Your task to perform on an android device: open app "Cash App" Image 0: 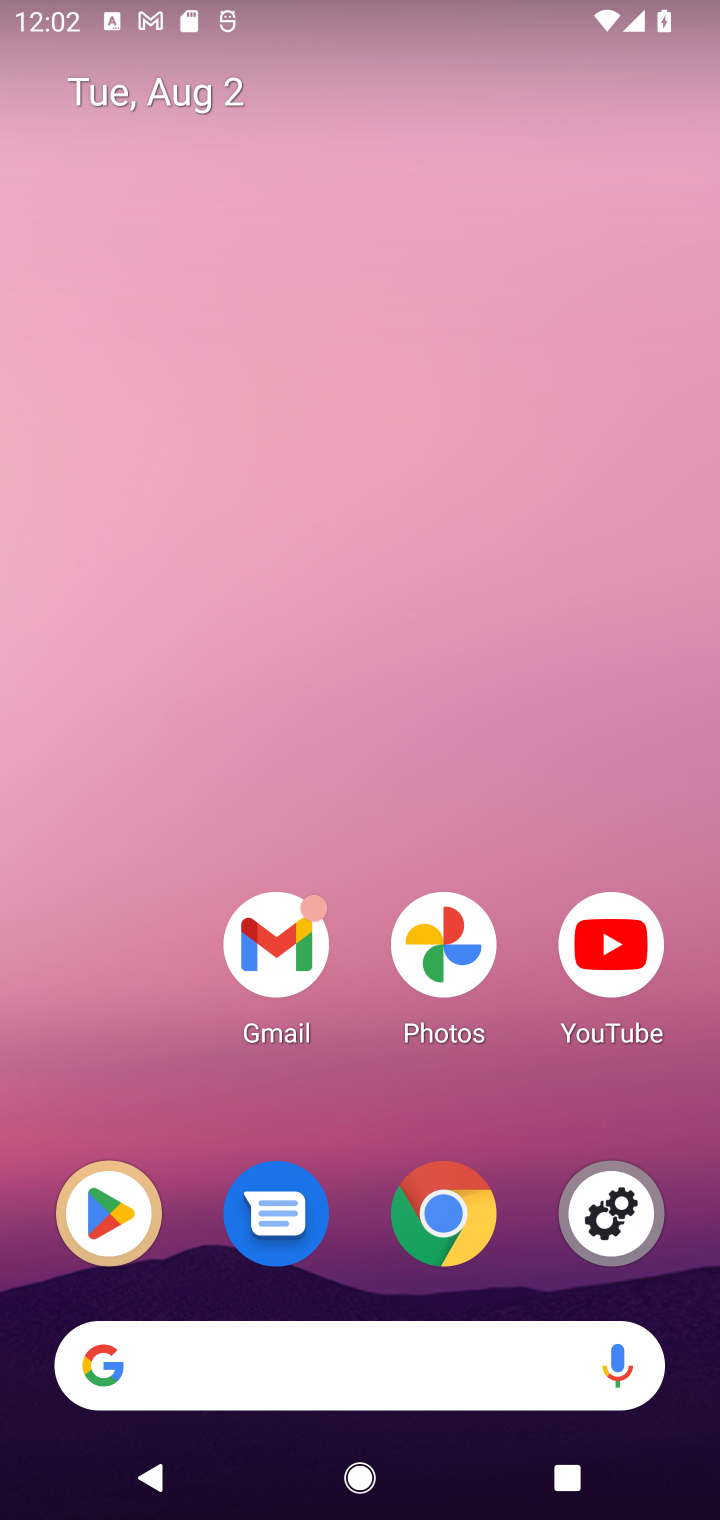
Step 0: click (124, 1239)
Your task to perform on an android device: open app "Cash App" Image 1: 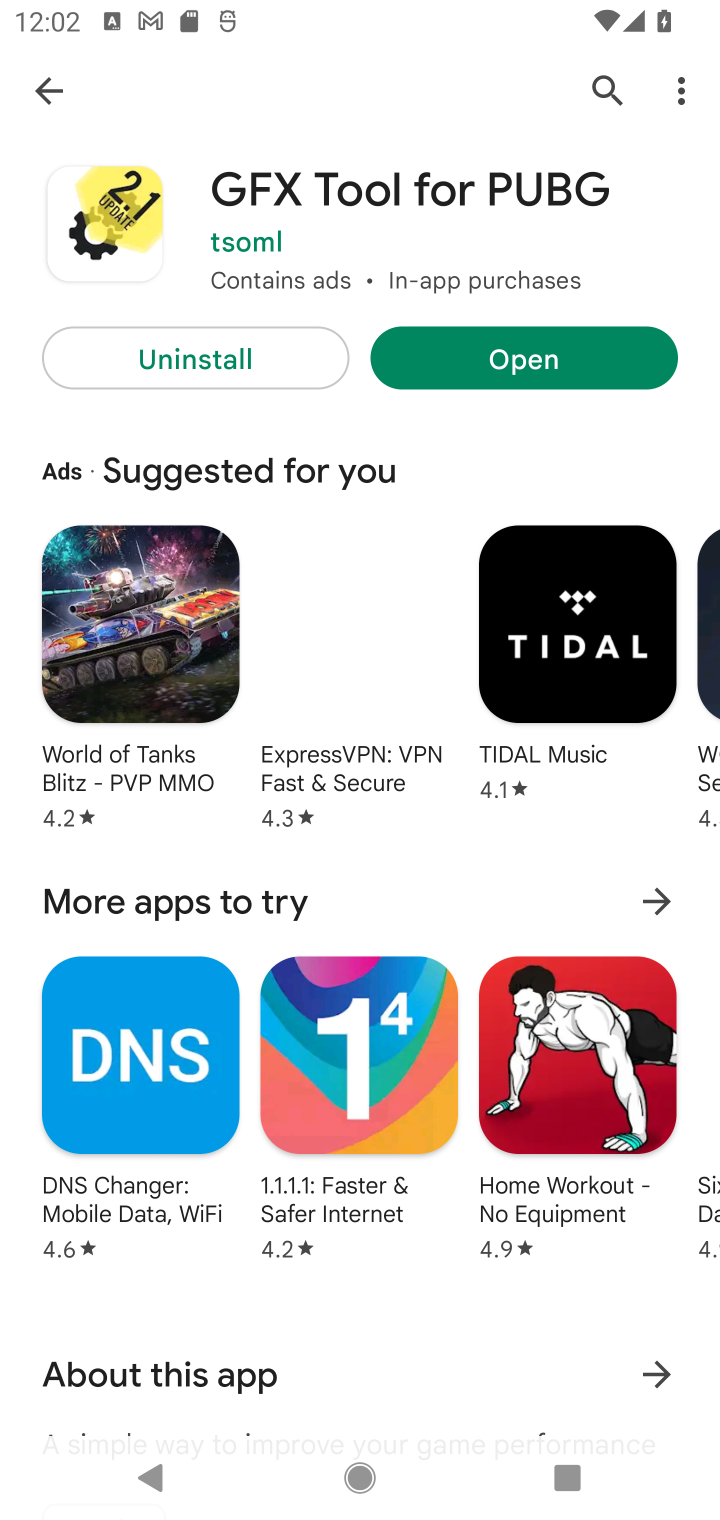
Step 1: click (59, 90)
Your task to perform on an android device: open app "Cash App" Image 2: 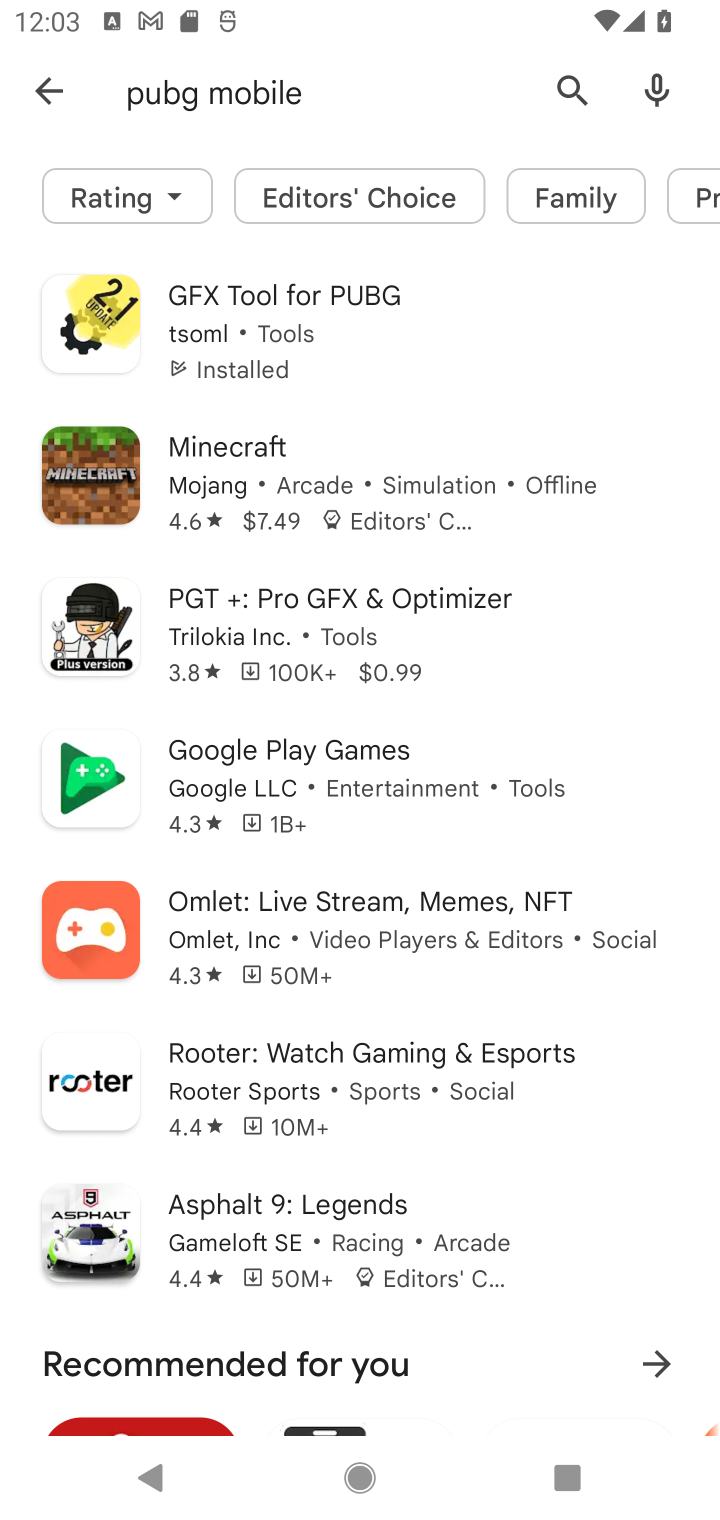
Step 2: click (56, 90)
Your task to perform on an android device: open app "Cash App" Image 3: 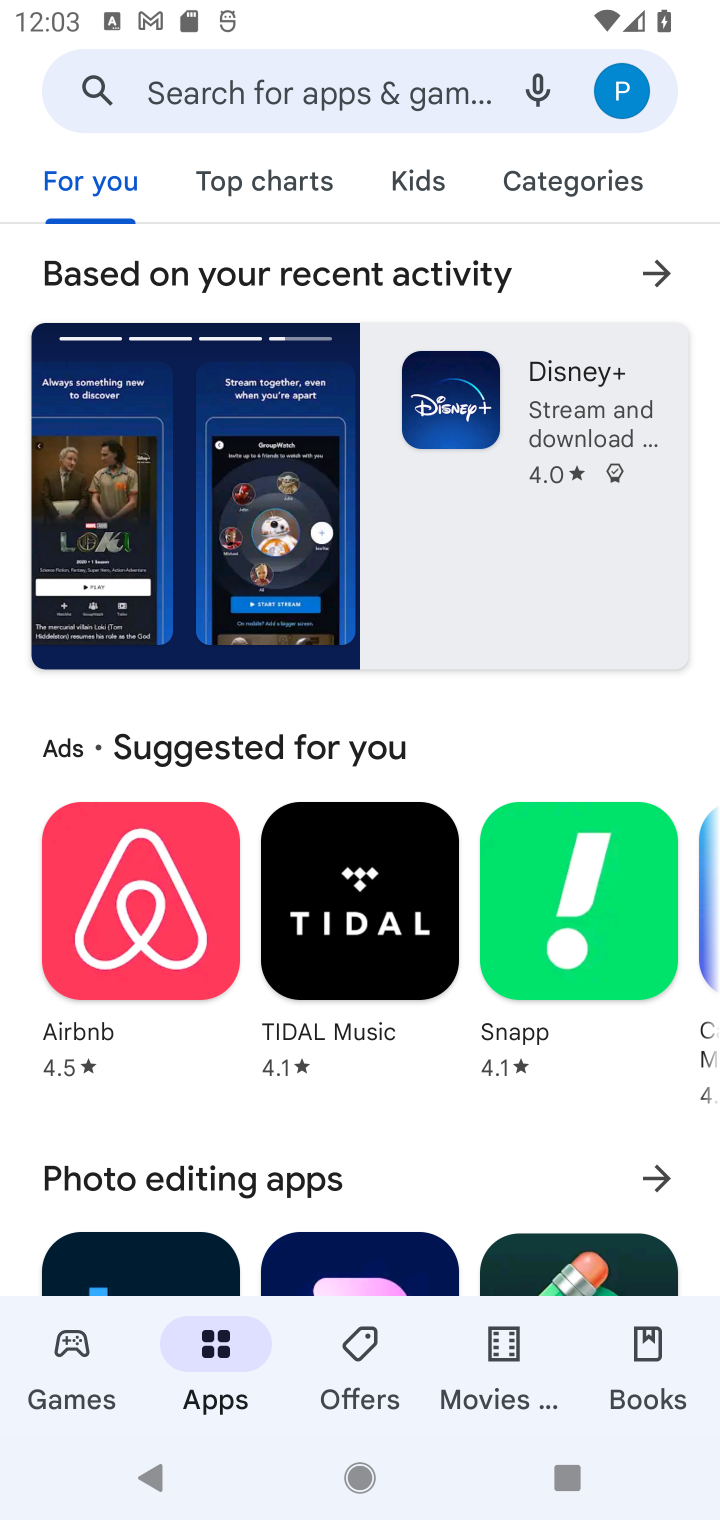
Step 3: click (294, 82)
Your task to perform on an android device: open app "Cash App" Image 4: 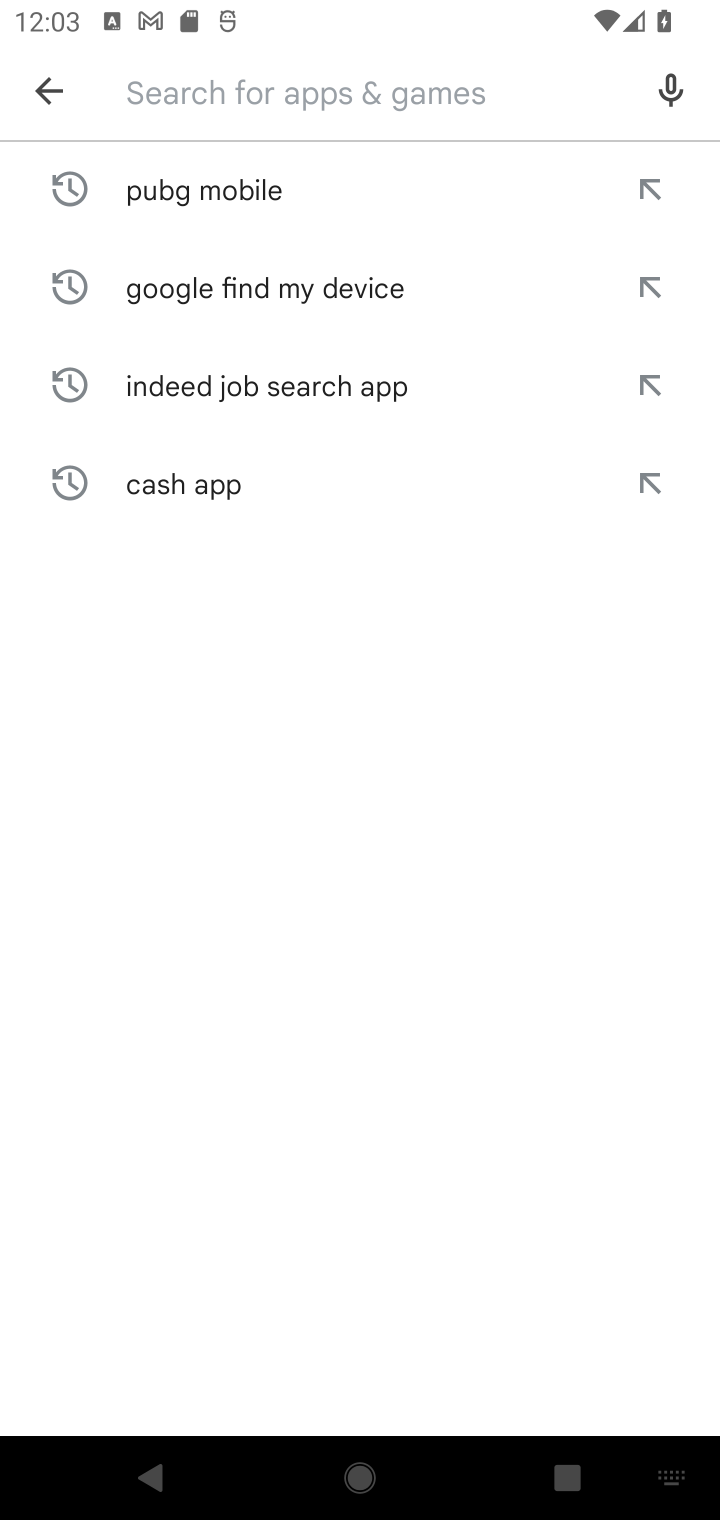
Step 4: type "Cash App"
Your task to perform on an android device: open app "Cash App" Image 5: 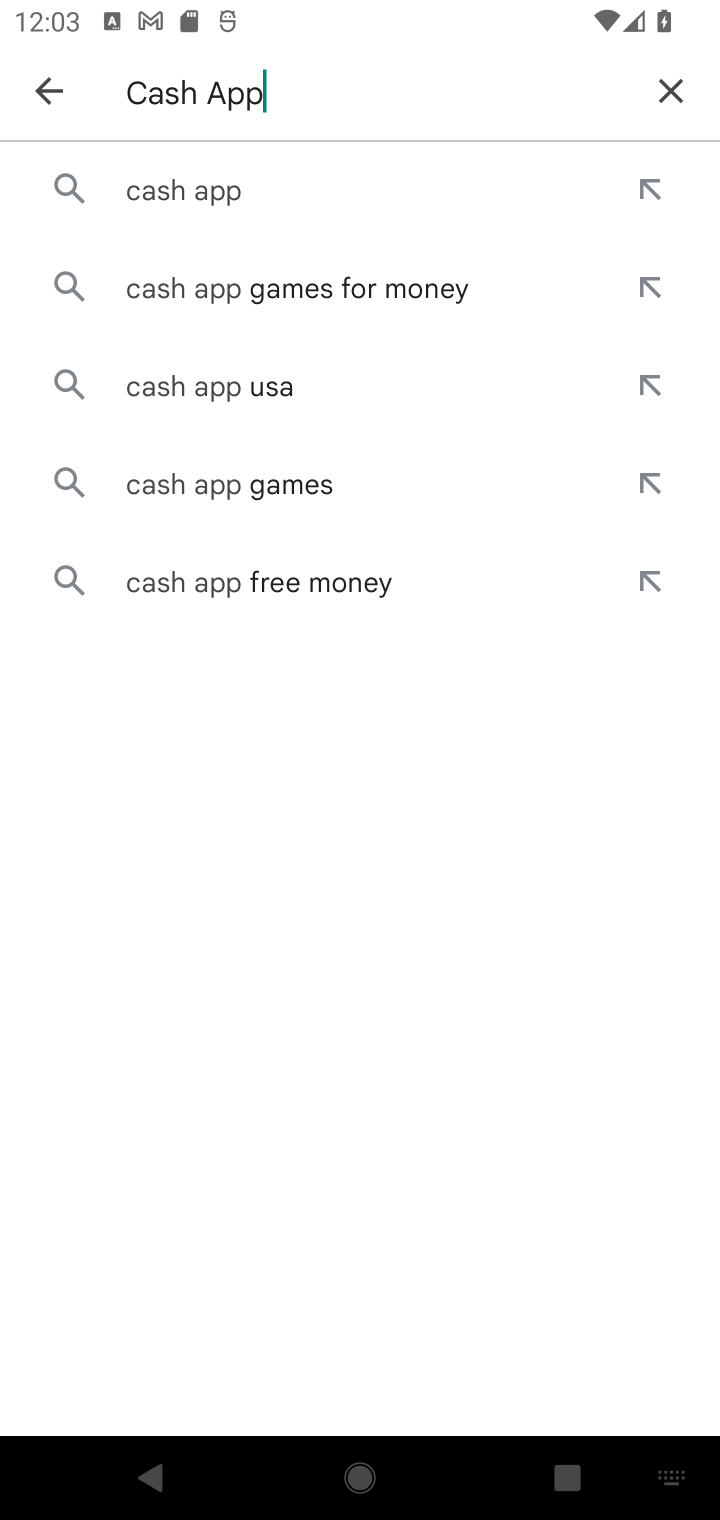
Step 5: click (227, 194)
Your task to perform on an android device: open app "Cash App" Image 6: 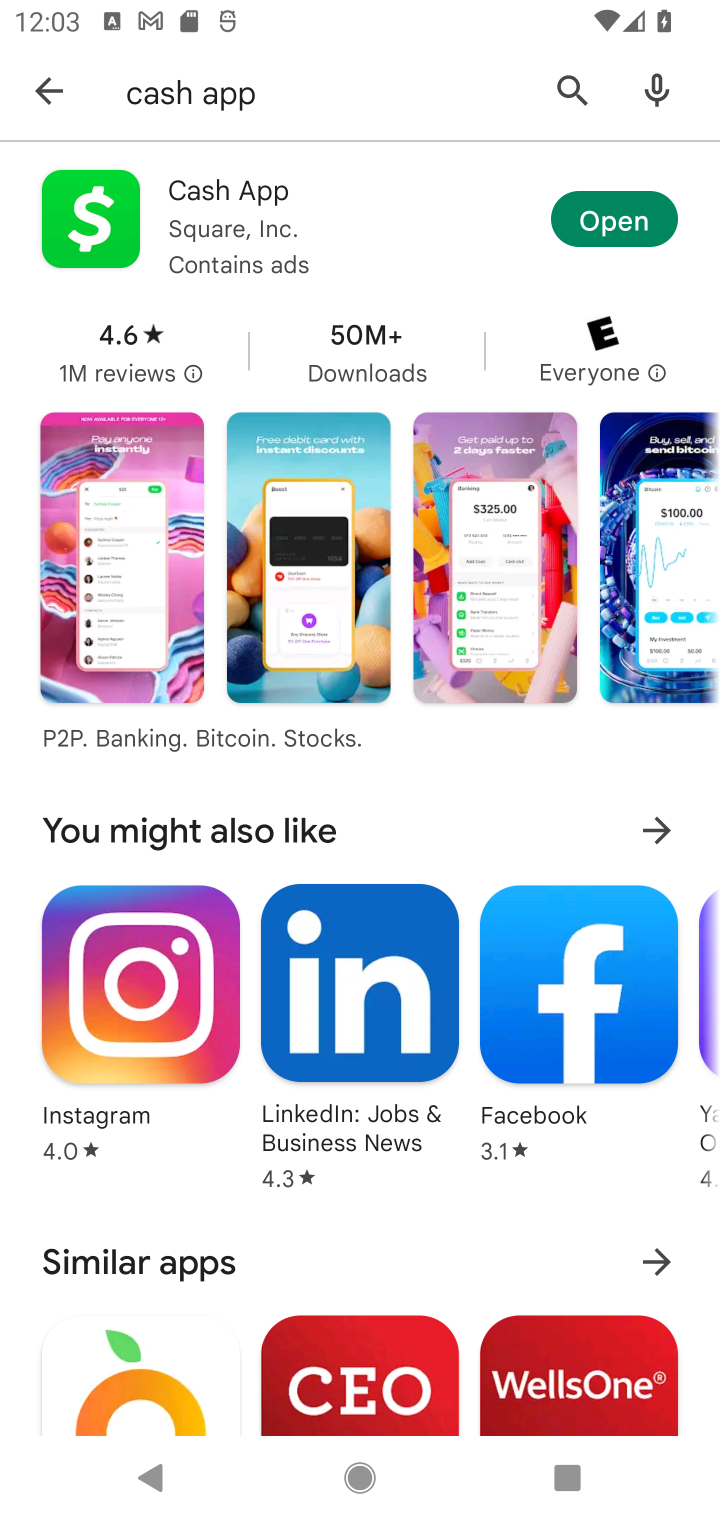
Step 6: click (616, 241)
Your task to perform on an android device: open app "Cash App" Image 7: 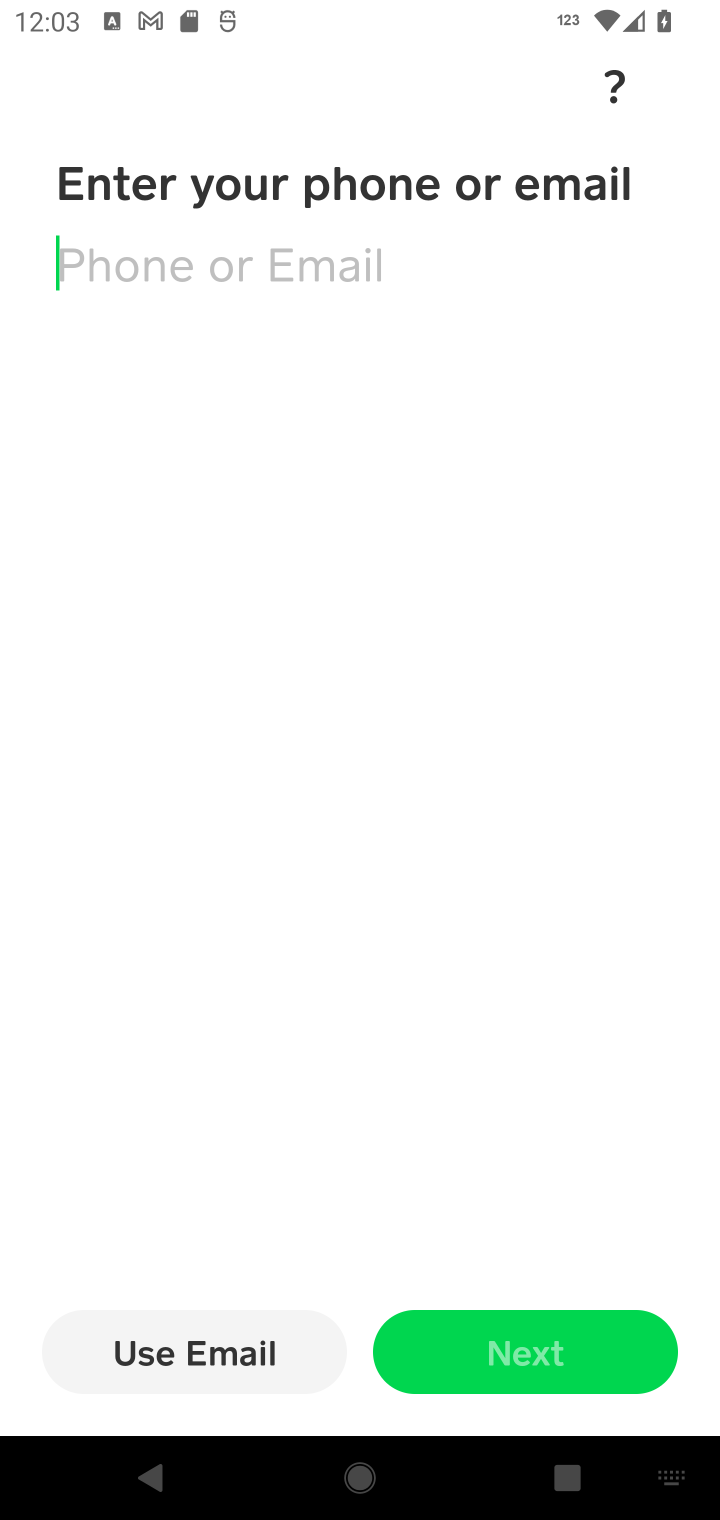
Step 7: task complete